Your task to perform on an android device: toggle priority inbox in the gmail app Image 0: 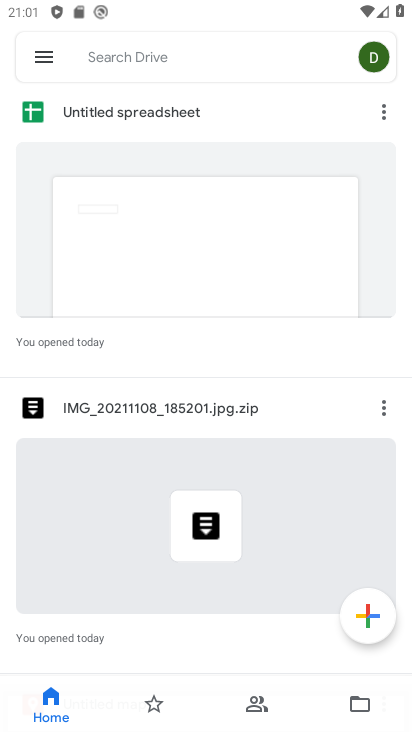
Step 0: press home button
Your task to perform on an android device: toggle priority inbox in the gmail app Image 1: 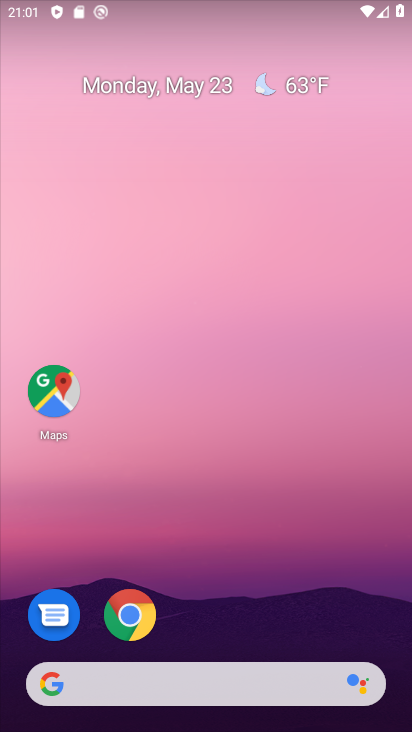
Step 1: drag from (225, 594) to (271, 89)
Your task to perform on an android device: toggle priority inbox in the gmail app Image 2: 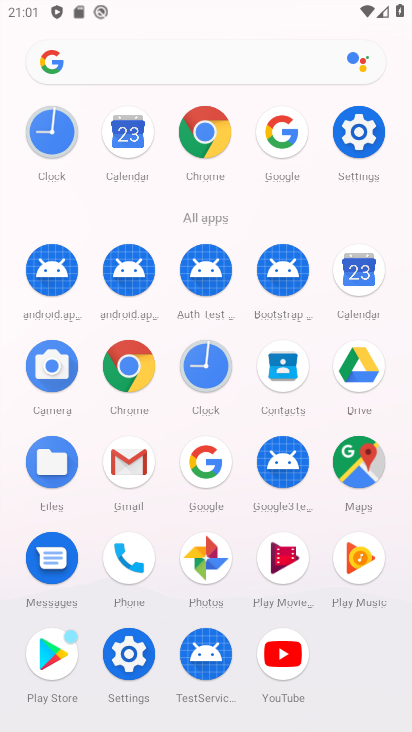
Step 2: click (130, 462)
Your task to perform on an android device: toggle priority inbox in the gmail app Image 3: 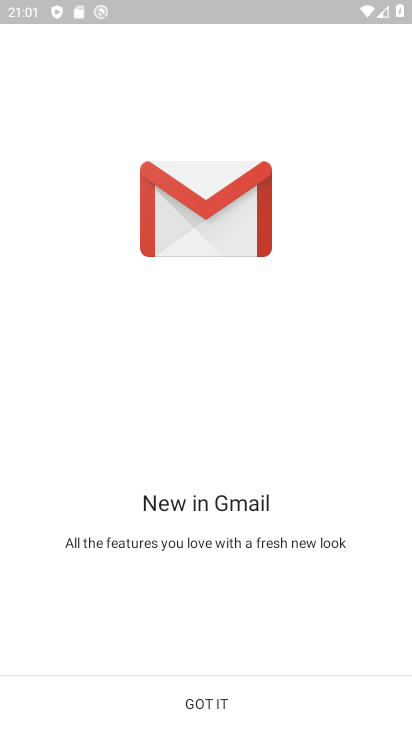
Step 3: click (212, 694)
Your task to perform on an android device: toggle priority inbox in the gmail app Image 4: 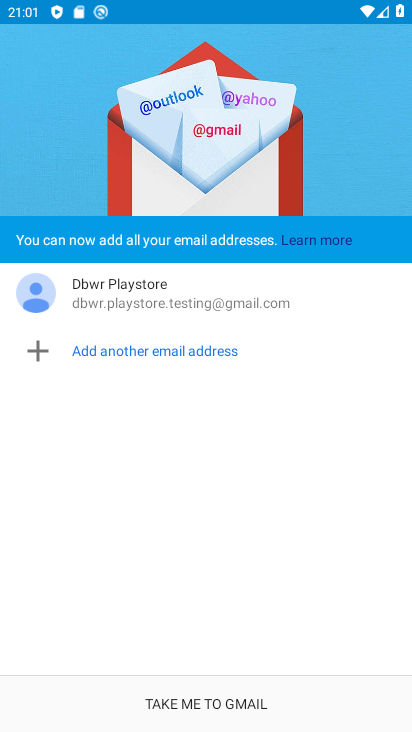
Step 4: click (207, 702)
Your task to perform on an android device: toggle priority inbox in the gmail app Image 5: 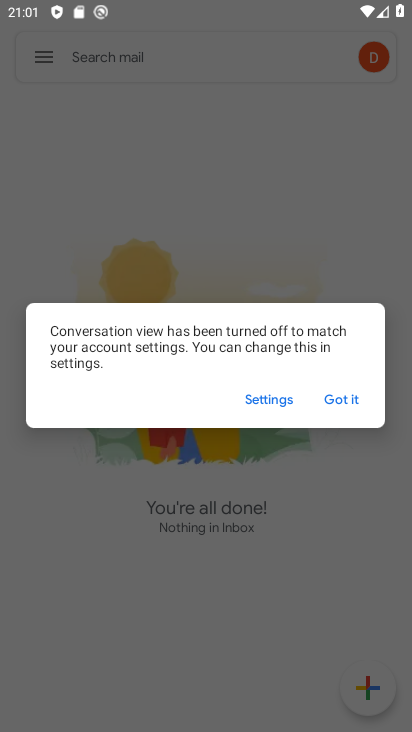
Step 5: click (344, 401)
Your task to perform on an android device: toggle priority inbox in the gmail app Image 6: 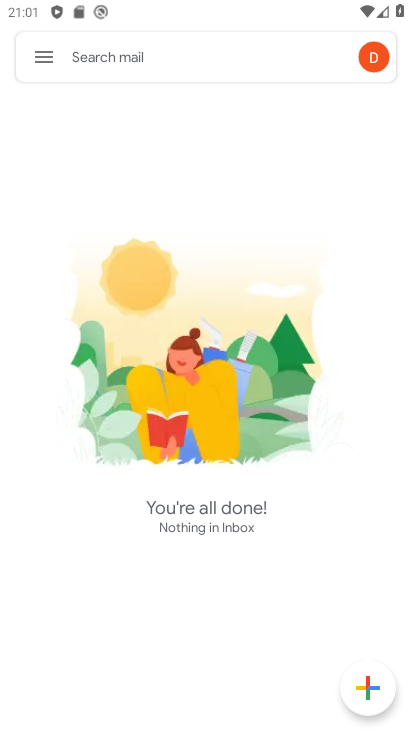
Step 6: click (39, 56)
Your task to perform on an android device: toggle priority inbox in the gmail app Image 7: 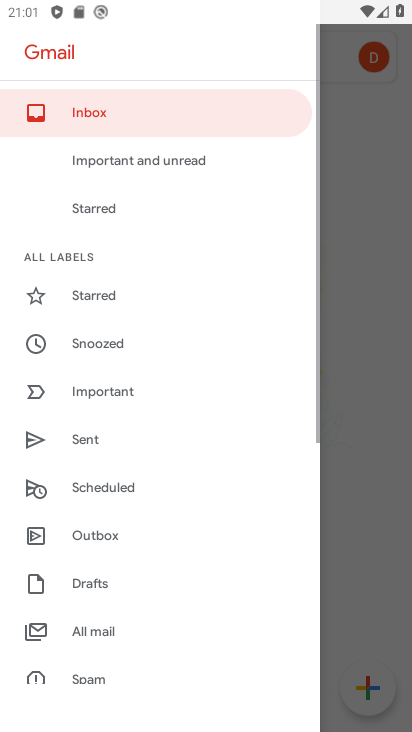
Step 7: drag from (192, 645) to (219, 109)
Your task to perform on an android device: toggle priority inbox in the gmail app Image 8: 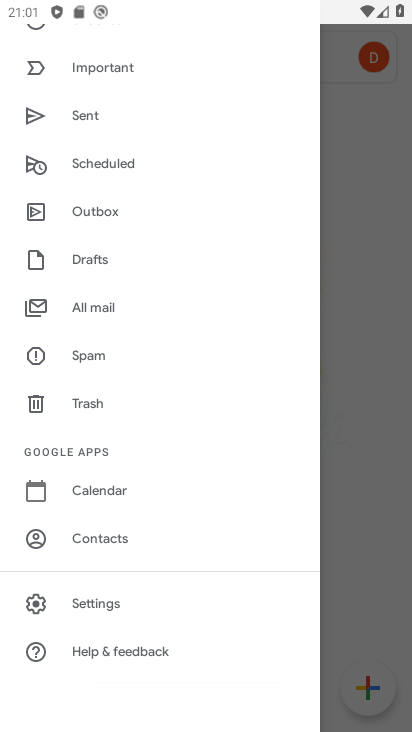
Step 8: click (71, 603)
Your task to perform on an android device: toggle priority inbox in the gmail app Image 9: 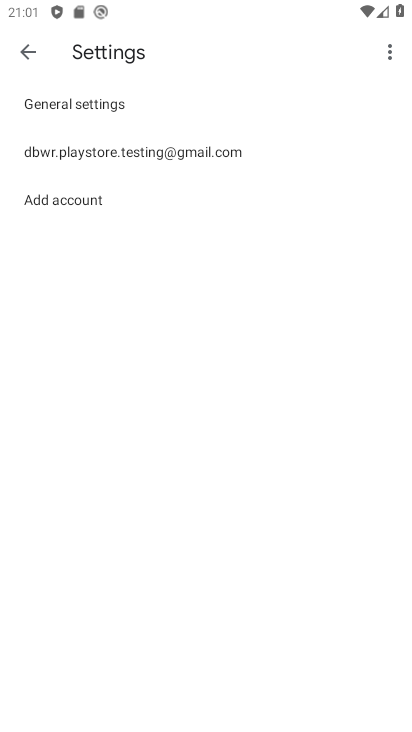
Step 9: click (101, 144)
Your task to perform on an android device: toggle priority inbox in the gmail app Image 10: 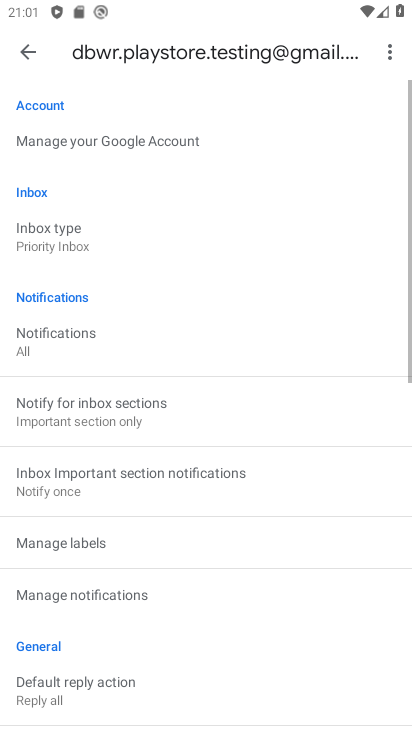
Step 10: drag from (196, 668) to (201, 99)
Your task to perform on an android device: toggle priority inbox in the gmail app Image 11: 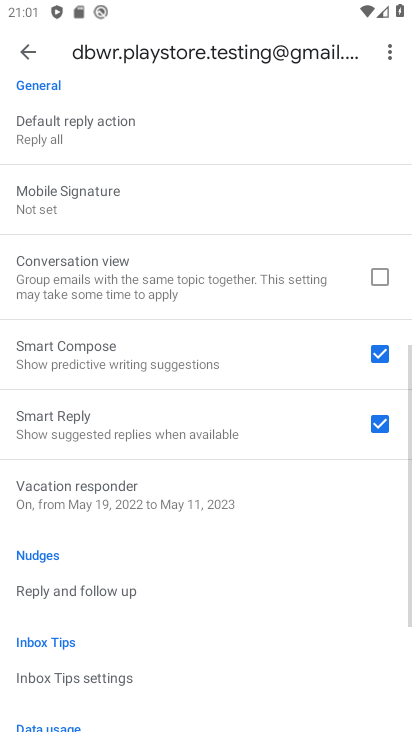
Step 11: drag from (191, 660) to (239, 264)
Your task to perform on an android device: toggle priority inbox in the gmail app Image 12: 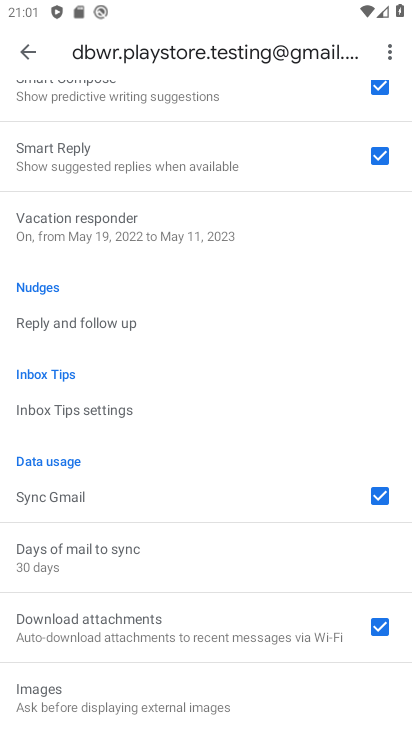
Step 12: click (230, 641)
Your task to perform on an android device: toggle priority inbox in the gmail app Image 13: 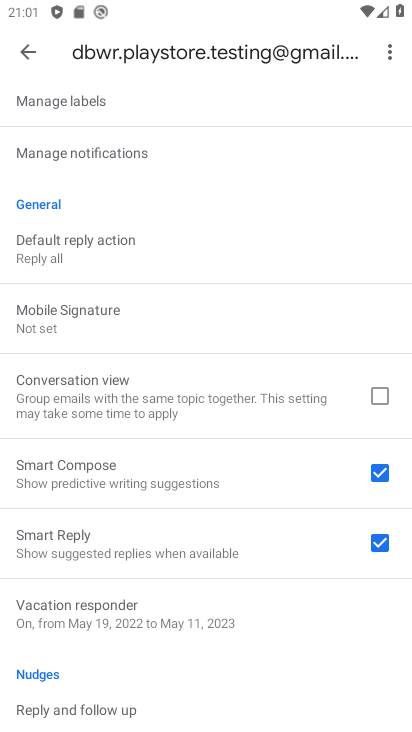
Step 13: drag from (145, 154) to (178, 620)
Your task to perform on an android device: toggle priority inbox in the gmail app Image 14: 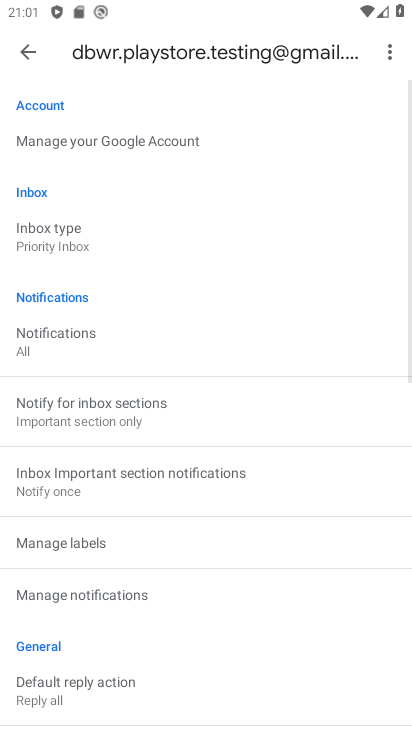
Step 14: click (78, 240)
Your task to perform on an android device: toggle priority inbox in the gmail app Image 15: 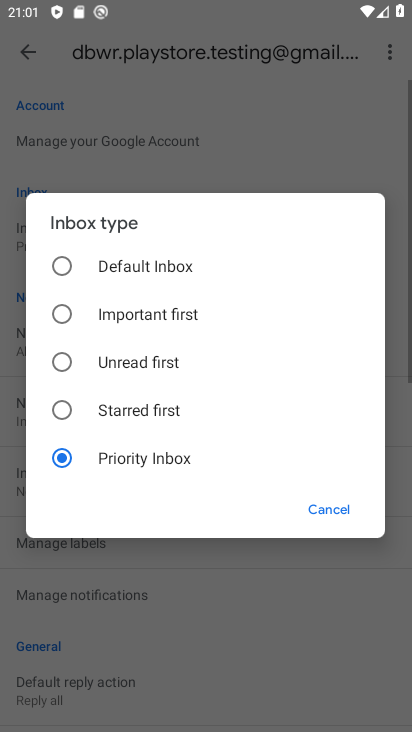
Step 15: click (58, 262)
Your task to perform on an android device: toggle priority inbox in the gmail app Image 16: 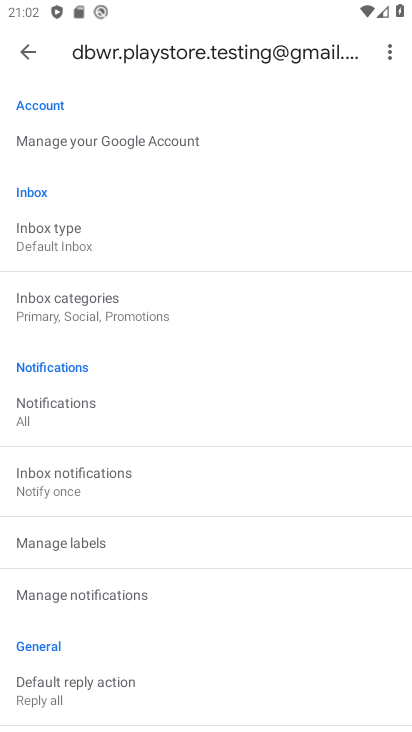
Step 16: task complete